Your task to perform on an android device: Go to display settings Image 0: 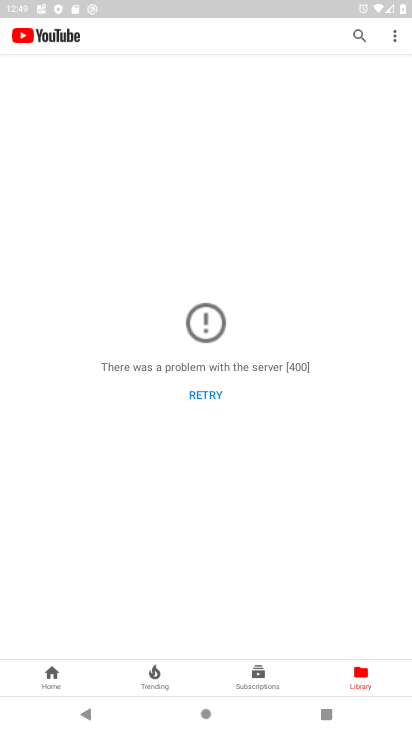
Step 0: press home button
Your task to perform on an android device: Go to display settings Image 1: 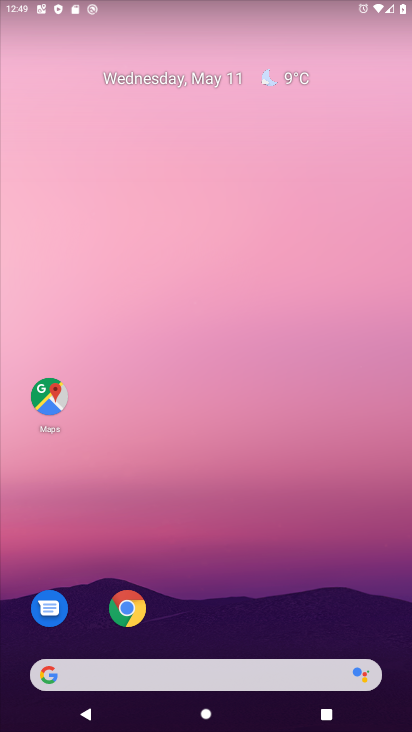
Step 1: drag from (271, 640) to (238, 387)
Your task to perform on an android device: Go to display settings Image 2: 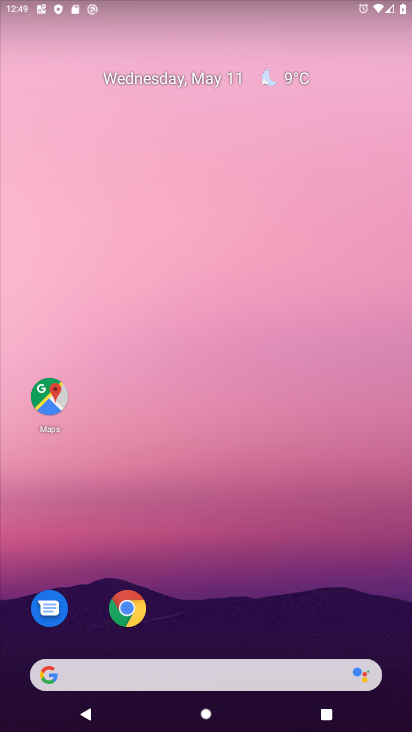
Step 2: drag from (252, 566) to (274, 284)
Your task to perform on an android device: Go to display settings Image 3: 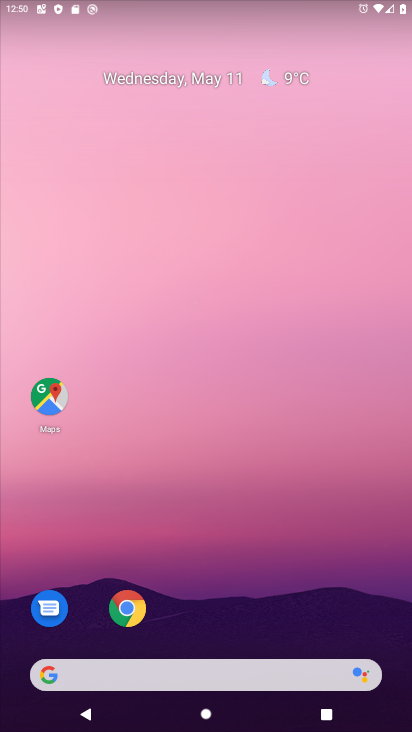
Step 3: drag from (269, 618) to (194, 174)
Your task to perform on an android device: Go to display settings Image 4: 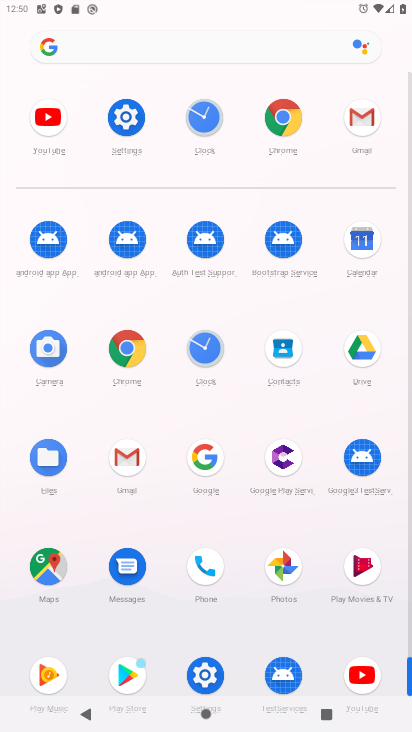
Step 4: click (130, 127)
Your task to perform on an android device: Go to display settings Image 5: 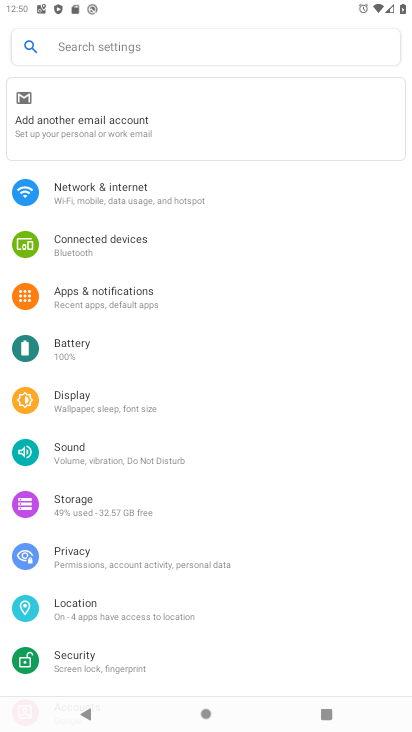
Step 5: click (136, 407)
Your task to perform on an android device: Go to display settings Image 6: 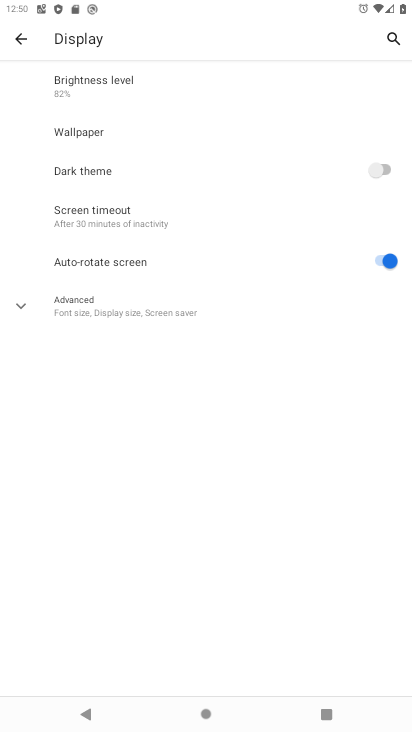
Step 6: task complete